Your task to perform on an android device: Set the phone to "Do not disturb". Image 0: 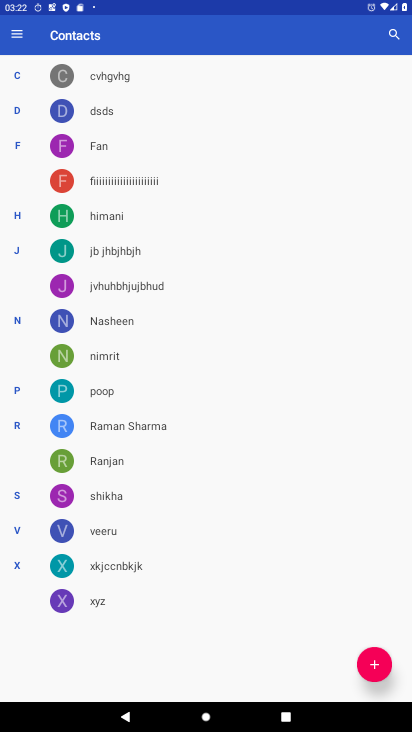
Step 0: press home button
Your task to perform on an android device: Set the phone to "Do not disturb". Image 1: 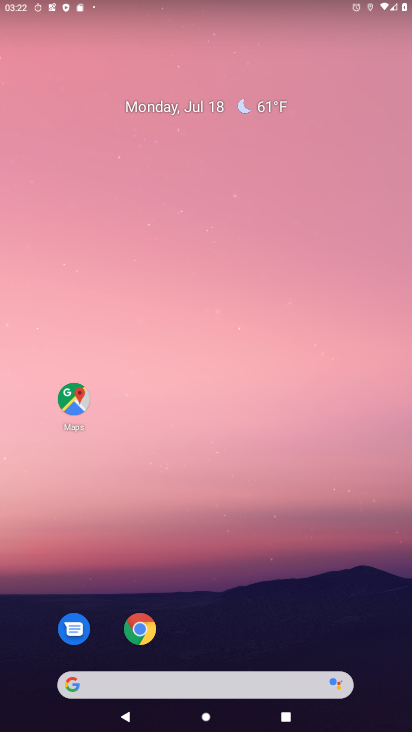
Step 1: drag from (167, 676) to (255, 319)
Your task to perform on an android device: Set the phone to "Do not disturb". Image 2: 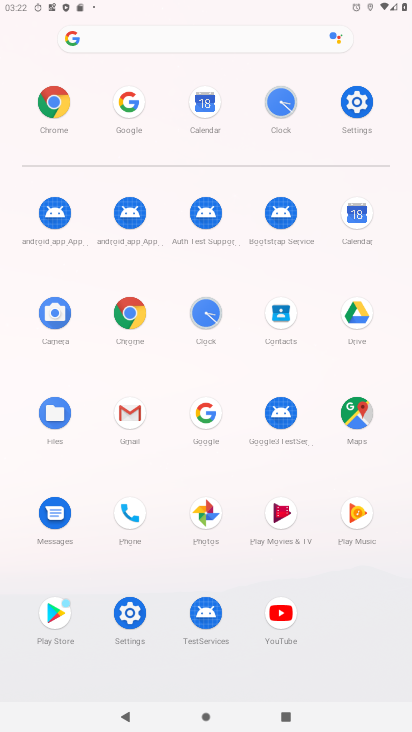
Step 2: click (356, 103)
Your task to perform on an android device: Set the phone to "Do not disturb". Image 3: 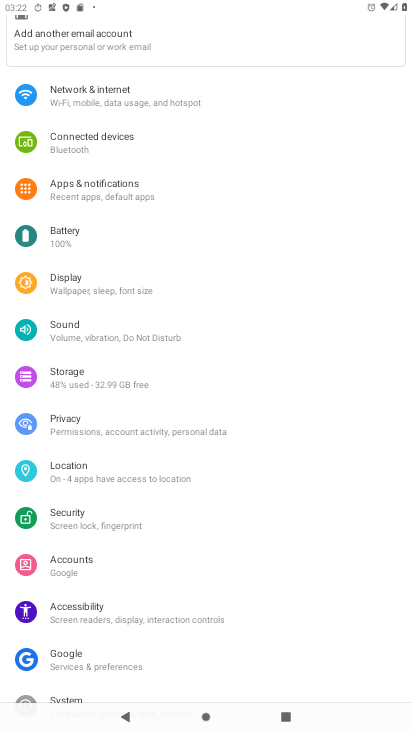
Step 3: click (136, 338)
Your task to perform on an android device: Set the phone to "Do not disturb". Image 4: 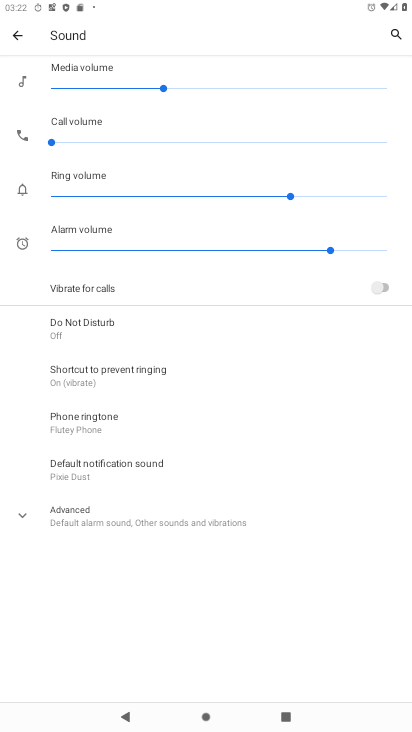
Step 4: click (94, 327)
Your task to perform on an android device: Set the phone to "Do not disturb". Image 5: 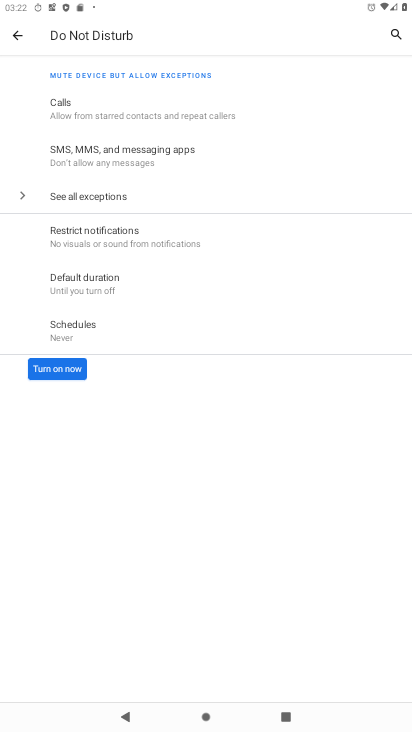
Step 5: click (64, 364)
Your task to perform on an android device: Set the phone to "Do not disturb". Image 6: 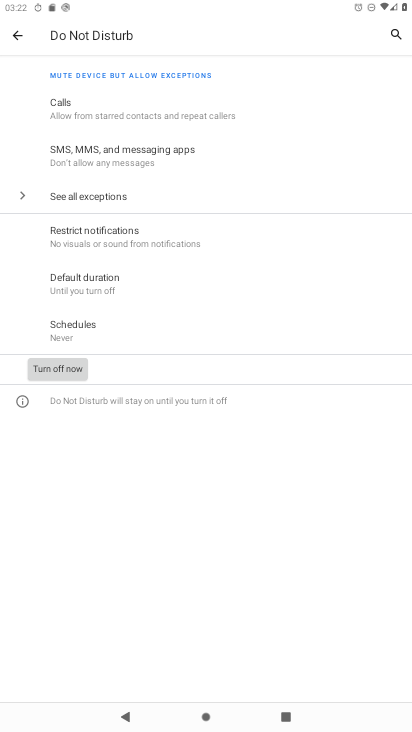
Step 6: task complete